Your task to perform on an android device: Do I have any events this weekend? Image 0: 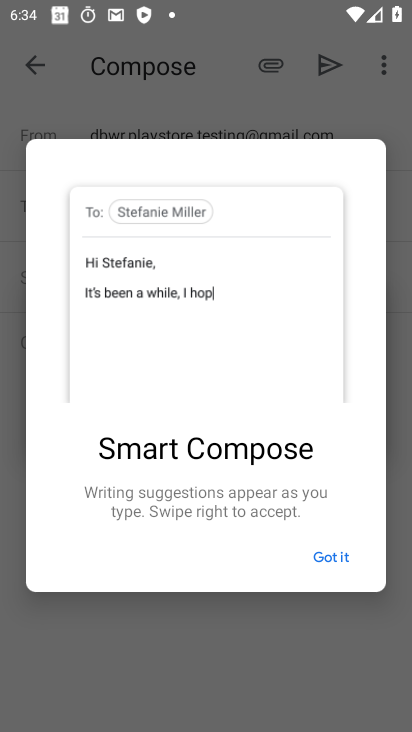
Step 0: press home button
Your task to perform on an android device: Do I have any events this weekend? Image 1: 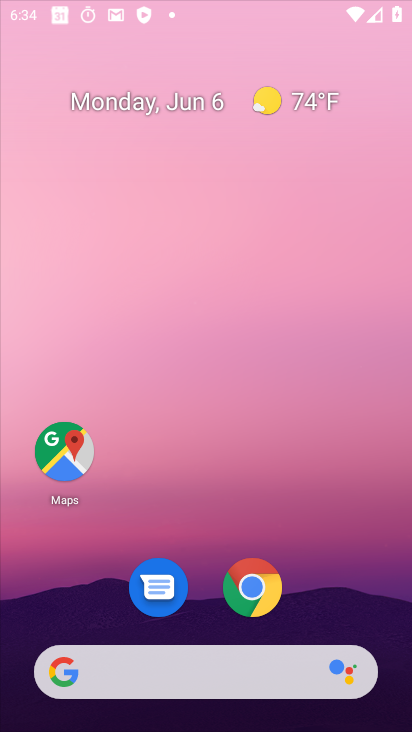
Step 1: drag from (403, 667) to (318, 23)
Your task to perform on an android device: Do I have any events this weekend? Image 2: 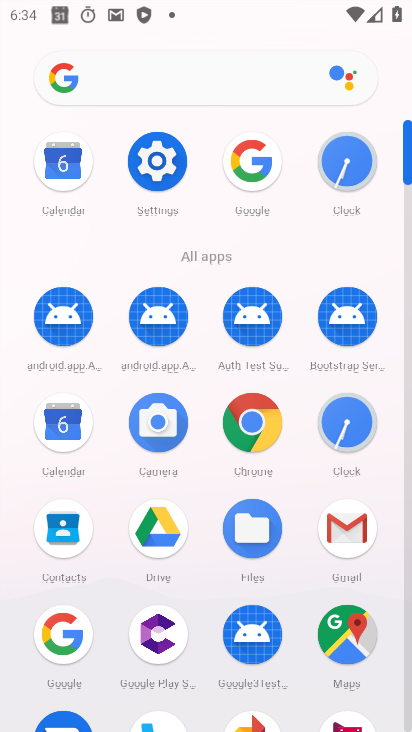
Step 2: click (78, 425)
Your task to perform on an android device: Do I have any events this weekend? Image 3: 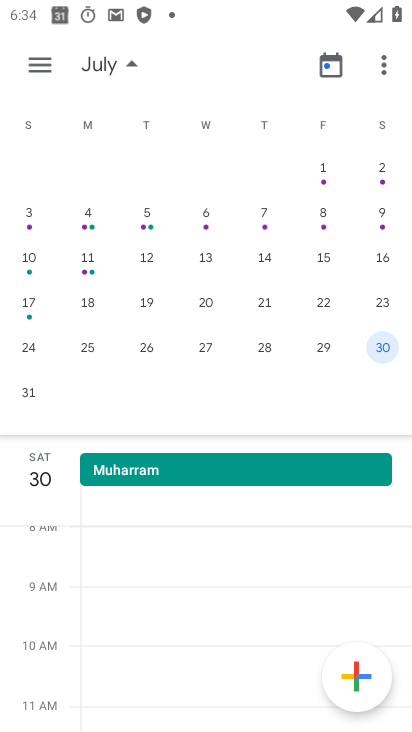
Step 3: click (376, 220)
Your task to perform on an android device: Do I have any events this weekend? Image 4: 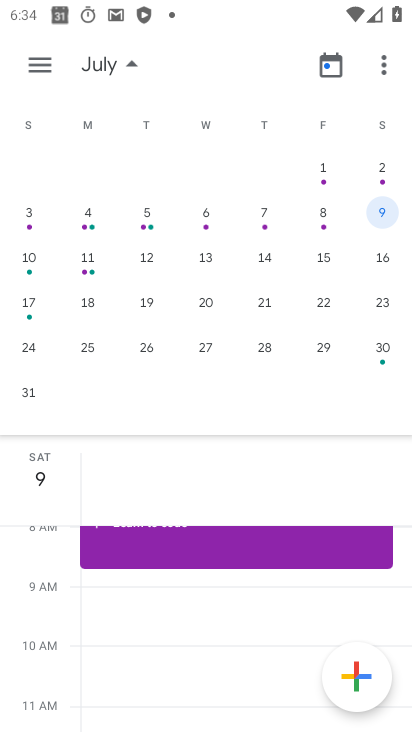
Step 4: click (205, 569)
Your task to perform on an android device: Do I have any events this weekend? Image 5: 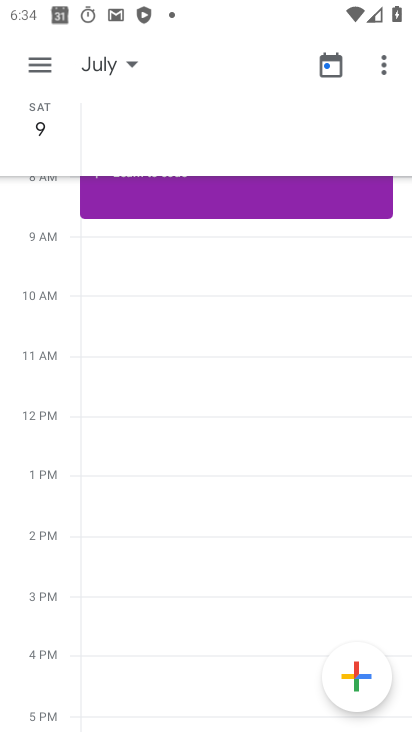
Step 5: click (180, 207)
Your task to perform on an android device: Do I have any events this weekend? Image 6: 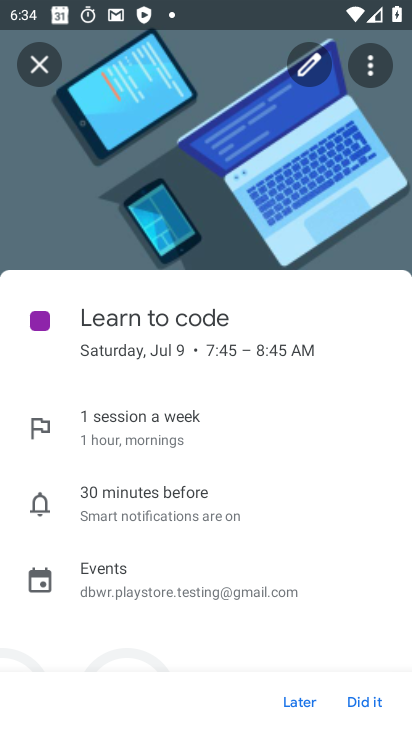
Step 6: task complete